Your task to perform on an android device: Open sound settings Image 0: 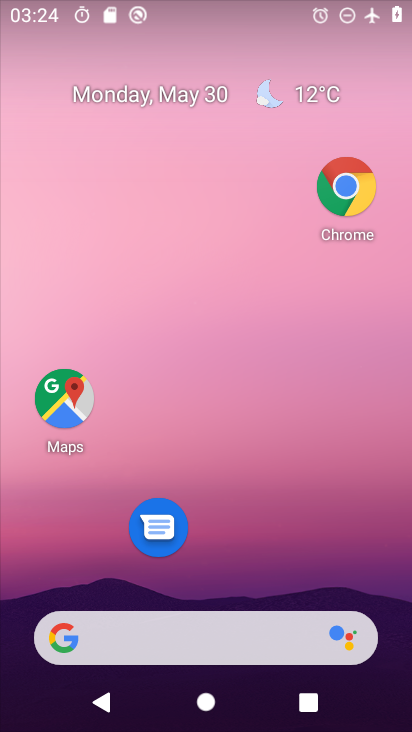
Step 0: drag from (212, 567) to (275, 46)
Your task to perform on an android device: Open sound settings Image 1: 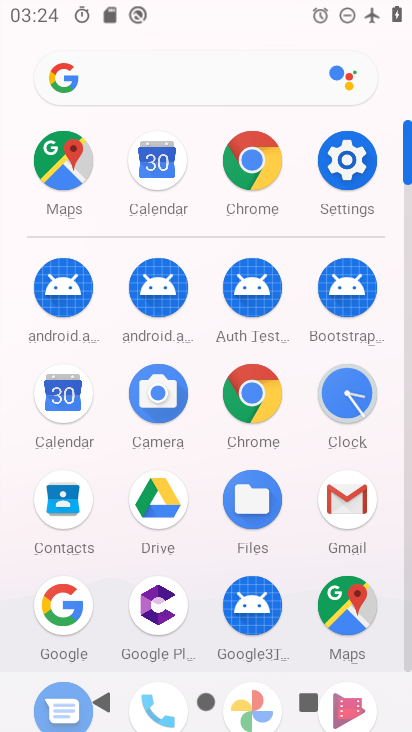
Step 1: click (335, 165)
Your task to perform on an android device: Open sound settings Image 2: 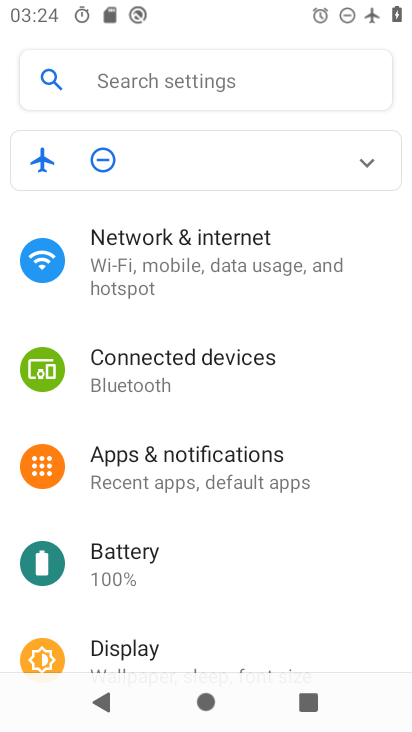
Step 2: click (145, 81)
Your task to perform on an android device: Open sound settings Image 3: 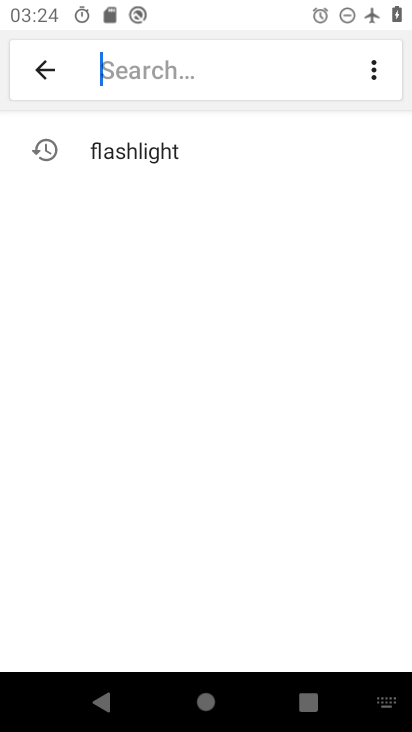
Step 3: type "sound settings"
Your task to perform on an android device: Open sound settings Image 4: 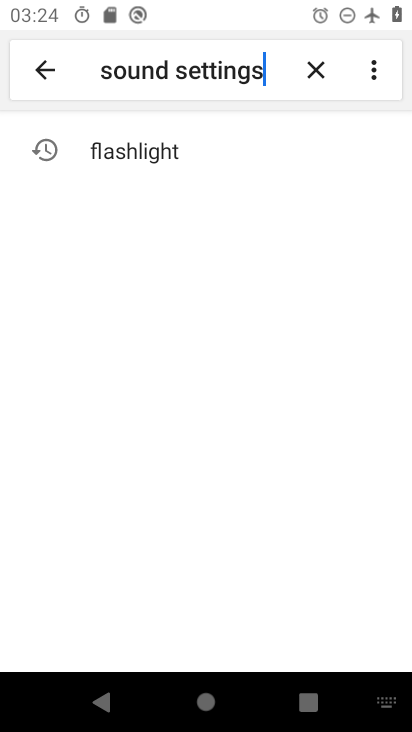
Step 4: type ""
Your task to perform on an android device: Open sound settings Image 5: 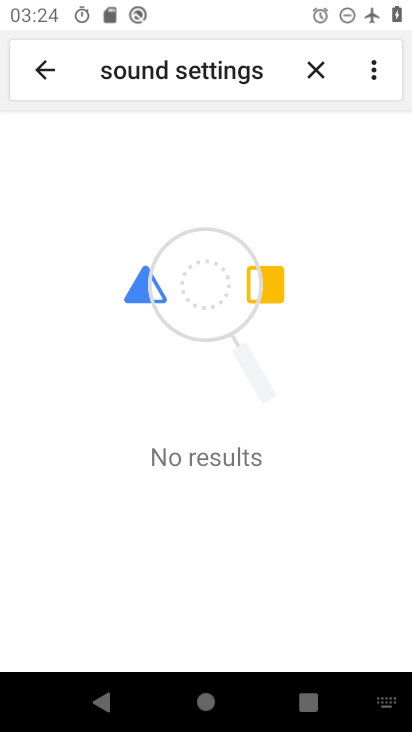
Step 5: click (296, 66)
Your task to perform on an android device: Open sound settings Image 6: 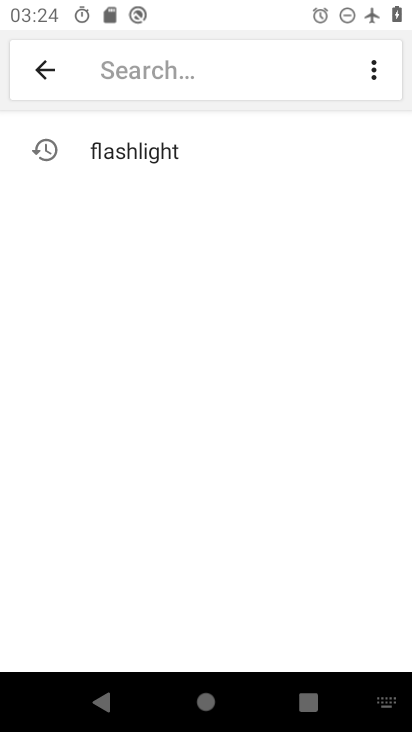
Step 6: click (49, 67)
Your task to perform on an android device: Open sound settings Image 7: 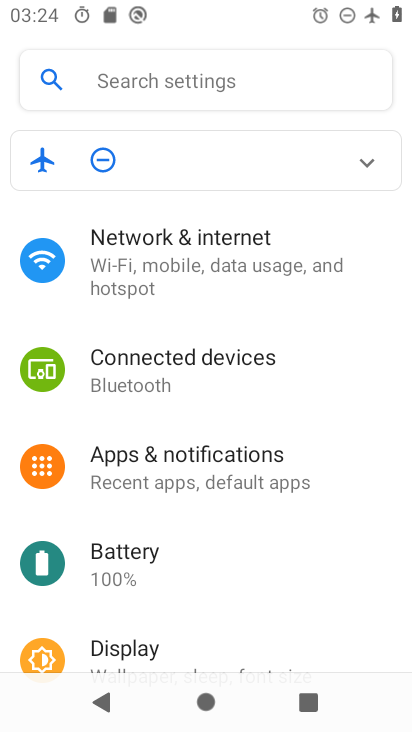
Step 7: drag from (170, 573) to (221, 128)
Your task to perform on an android device: Open sound settings Image 8: 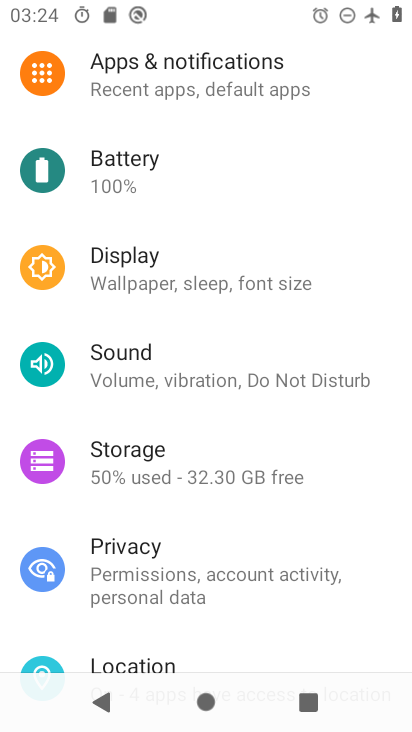
Step 8: click (172, 377)
Your task to perform on an android device: Open sound settings Image 9: 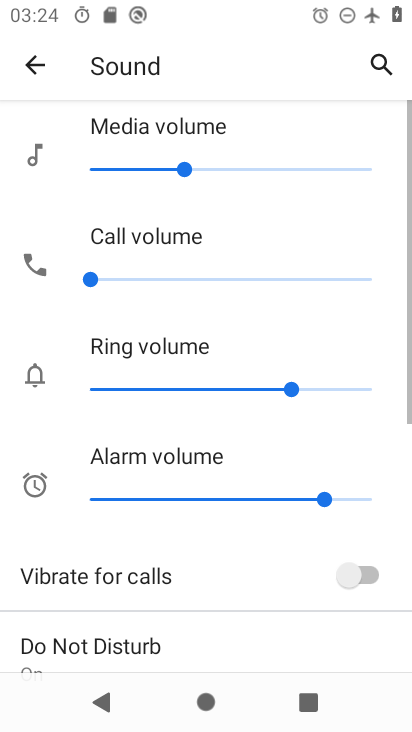
Step 9: task complete